Your task to perform on an android device: empty trash in google photos Image 0: 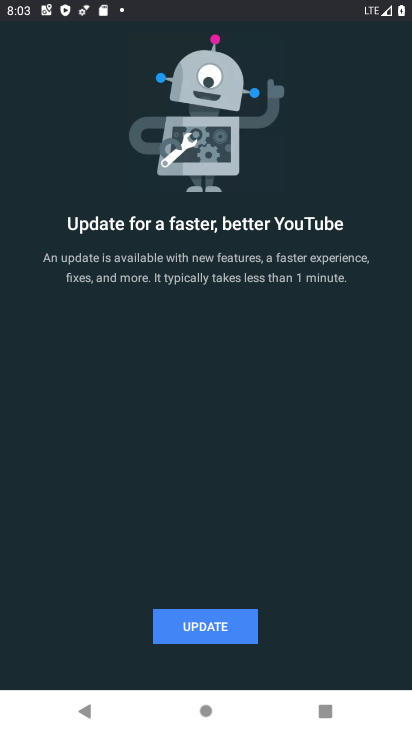
Step 0: press back button
Your task to perform on an android device: empty trash in google photos Image 1: 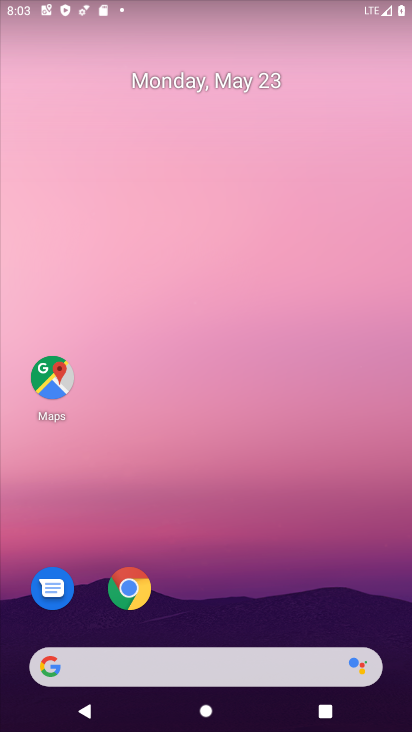
Step 1: drag from (397, 700) to (411, 150)
Your task to perform on an android device: empty trash in google photos Image 2: 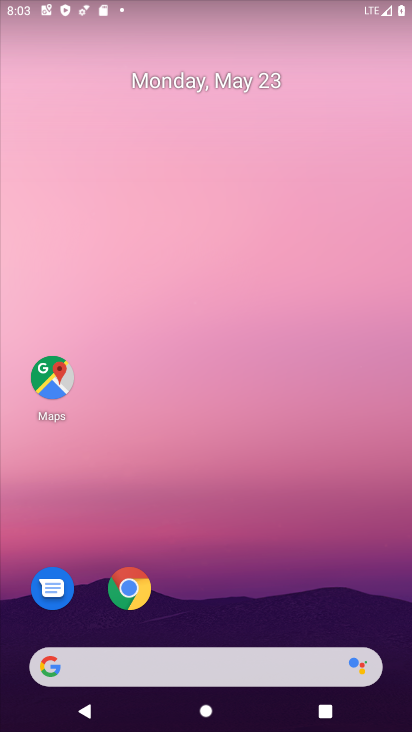
Step 2: drag from (377, 624) to (348, 191)
Your task to perform on an android device: empty trash in google photos Image 3: 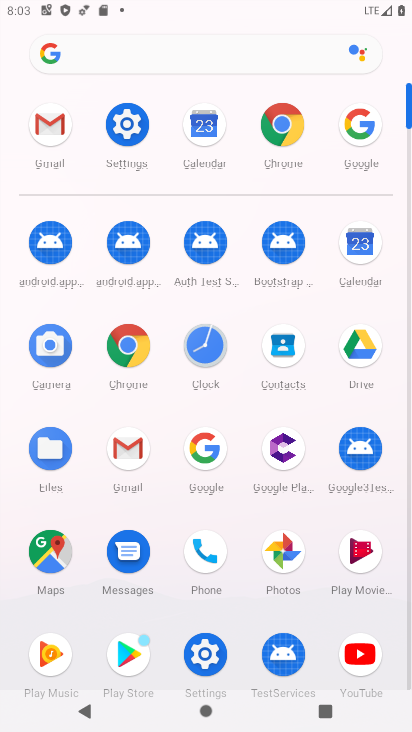
Step 3: click (288, 560)
Your task to perform on an android device: empty trash in google photos Image 4: 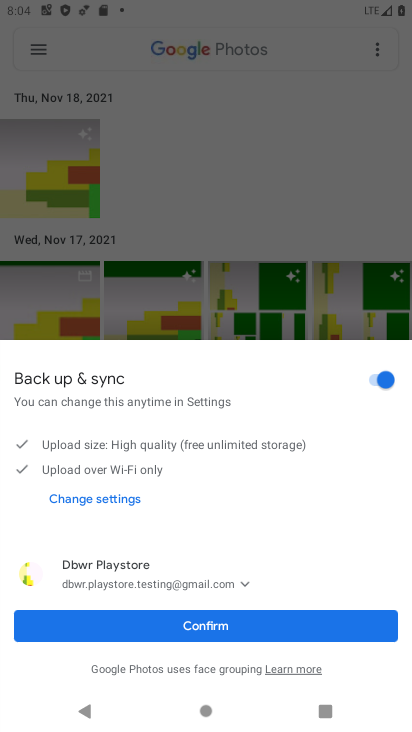
Step 4: click (189, 606)
Your task to perform on an android device: empty trash in google photos Image 5: 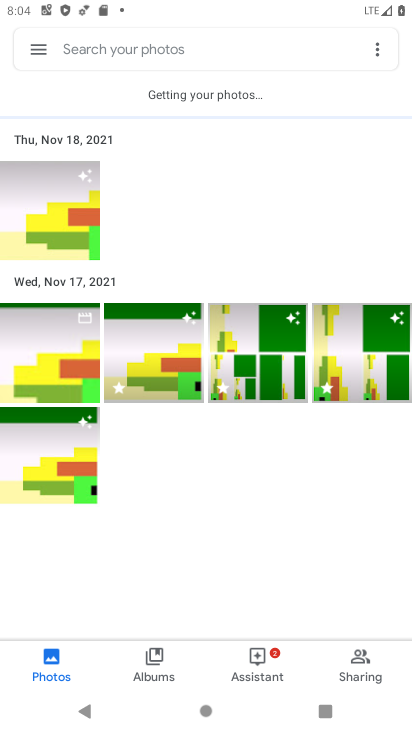
Step 5: click (32, 42)
Your task to perform on an android device: empty trash in google photos Image 6: 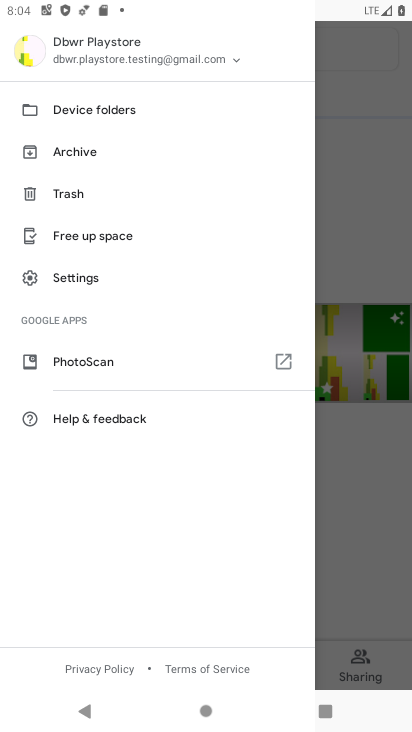
Step 6: click (62, 194)
Your task to perform on an android device: empty trash in google photos Image 7: 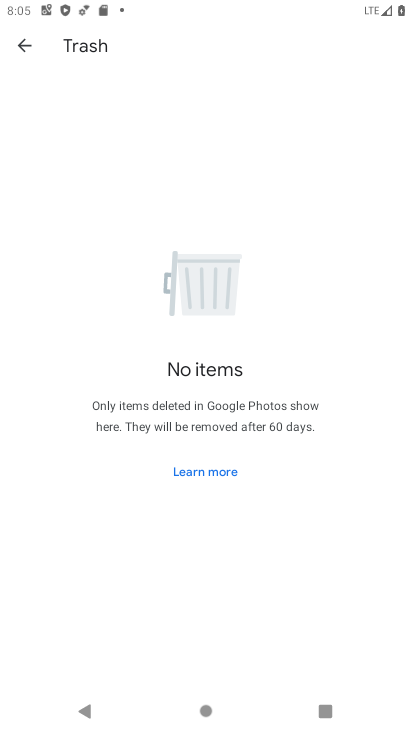
Step 7: task complete